Your task to perform on an android device: toggle priority inbox in the gmail app Image 0: 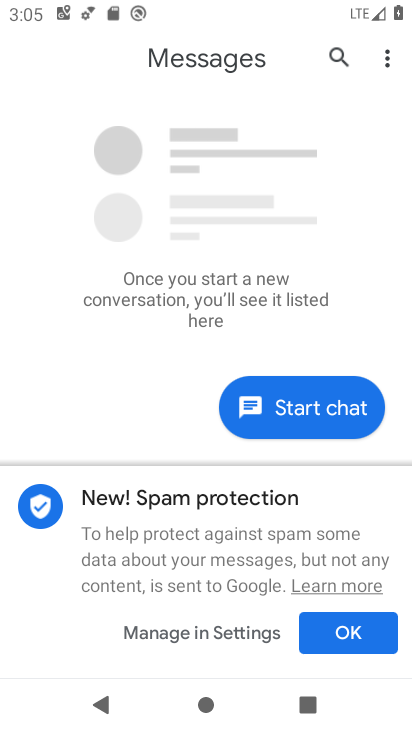
Step 0: press home button
Your task to perform on an android device: toggle priority inbox in the gmail app Image 1: 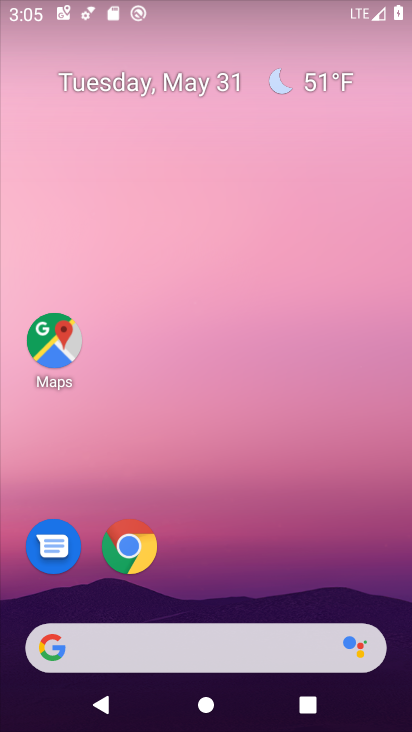
Step 1: drag from (309, 580) to (232, 127)
Your task to perform on an android device: toggle priority inbox in the gmail app Image 2: 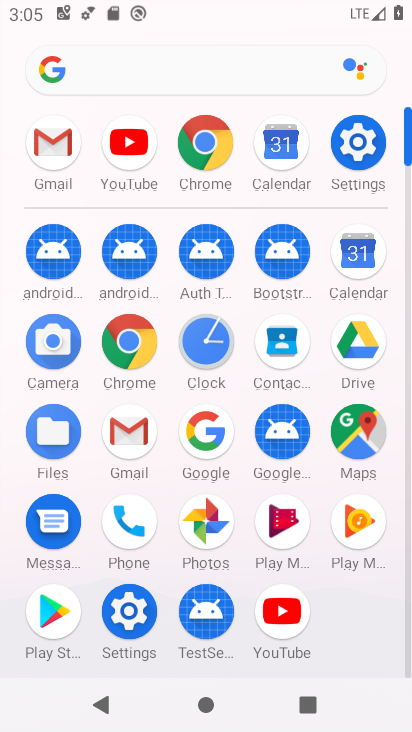
Step 2: click (62, 153)
Your task to perform on an android device: toggle priority inbox in the gmail app Image 3: 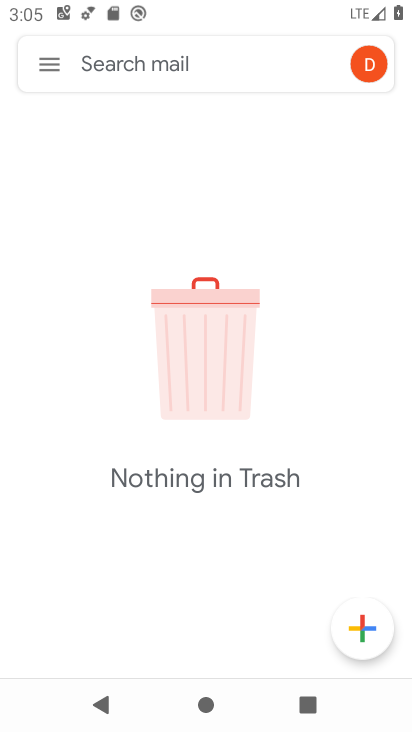
Step 3: click (43, 64)
Your task to perform on an android device: toggle priority inbox in the gmail app Image 4: 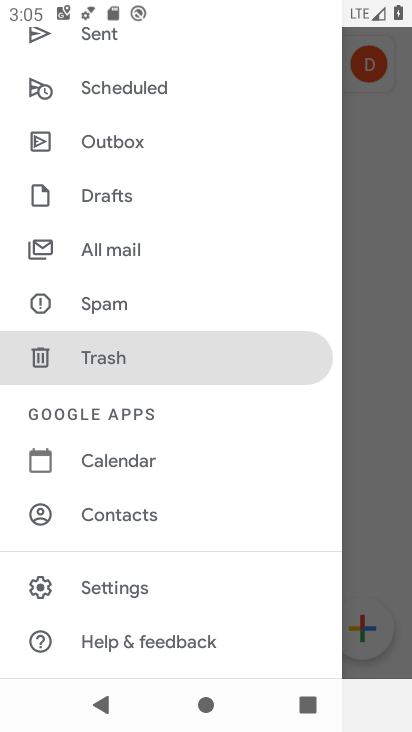
Step 4: click (152, 589)
Your task to perform on an android device: toggle priority inbox in the gmail app Image 5: 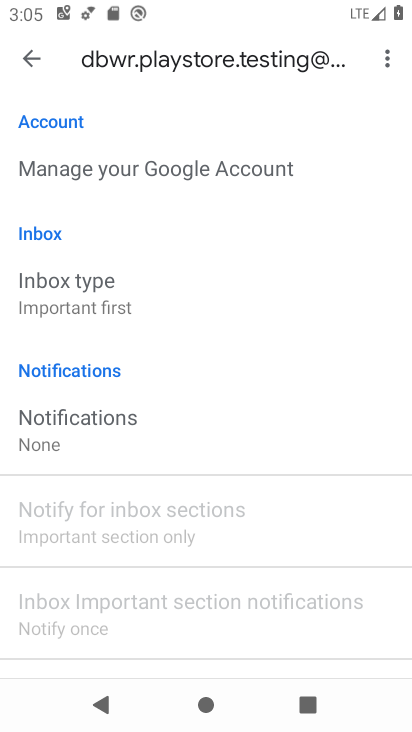
Step 5: click (102, 301)
Your task to perform on an android device: toggle priority inbox in the gmail app Image 6: 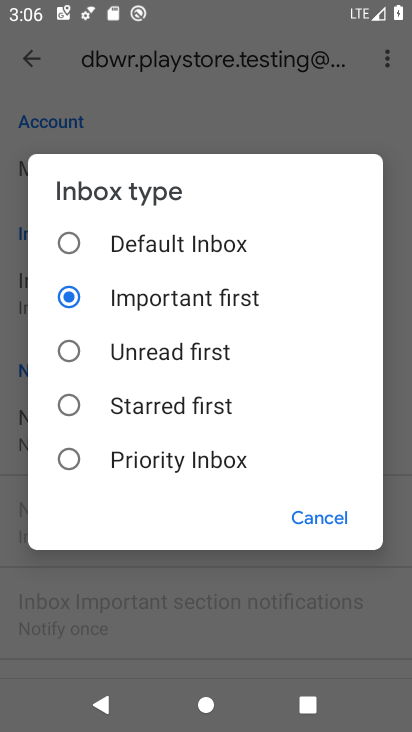
Step 6: click (150, 464)
Your task to perform on an android device: toggle priority inbox in the gmail app Image 7: 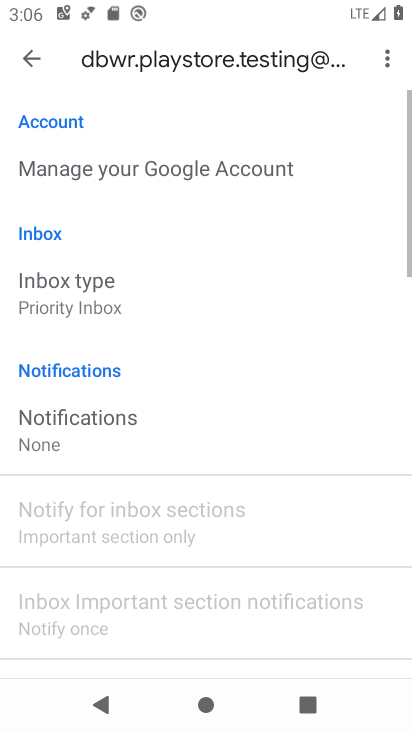
Step 7: task complete